Your task to perform on an android device: Do I have any events tomorrow? Image 0: 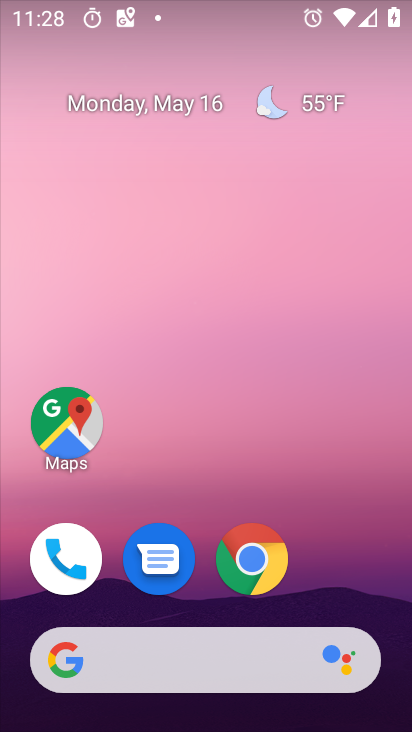
Step 0: drag from (334, 556) to (381, 204)
Your task to perform on an android device: Do I have any events tomorrow? Image 1: 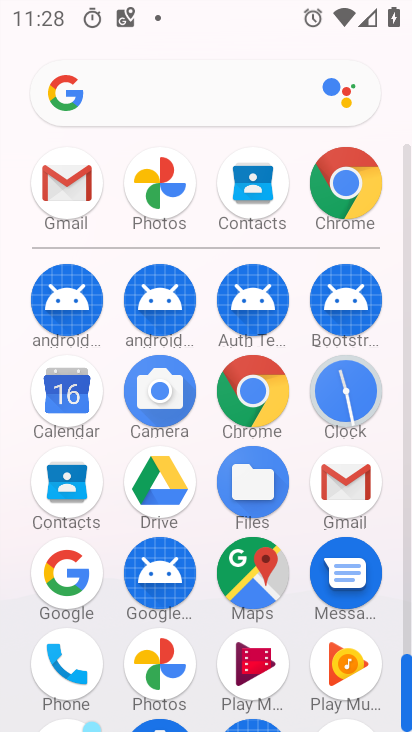
Step 1: click (62, 397)
Your task to perform on an android device: Do I have any events tomorrow? Image 2: 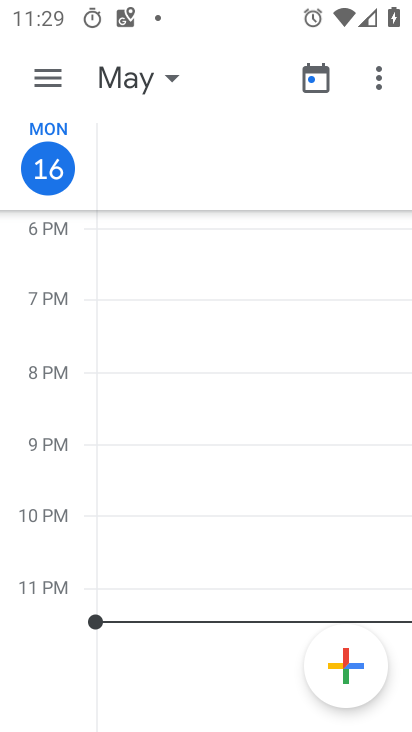
Step 2: click (130, 83)
Your task to perform on an android device: Do I have any events tomorrow? Image 3: 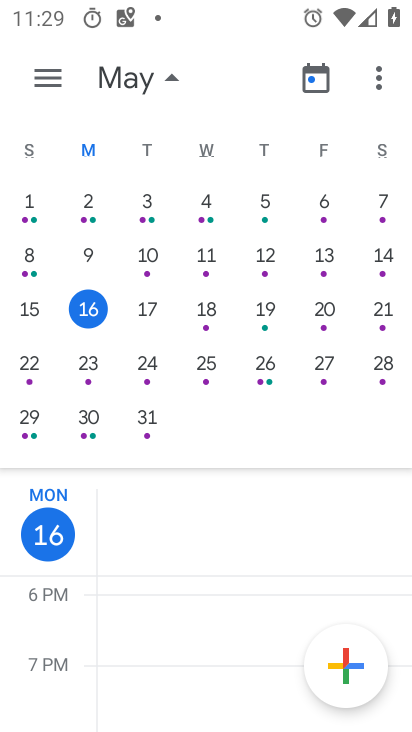
Step 3: click (139, 303)
Your task to perform on an android device: Do I have any events tomorrow? Image 4: 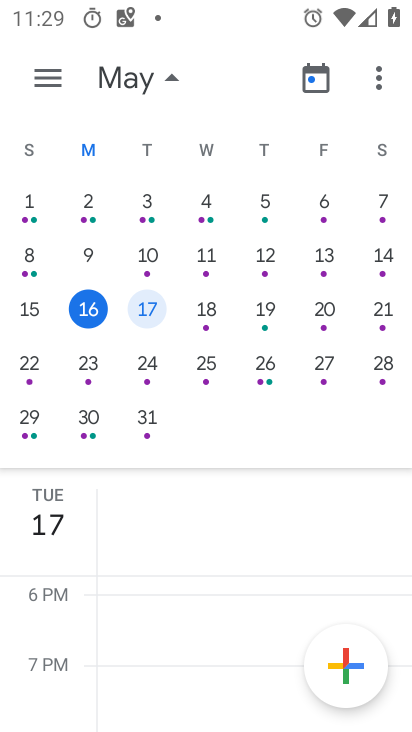
Step 4: task complete